Your task to perform on an android device: Go to battery settings Image 0: 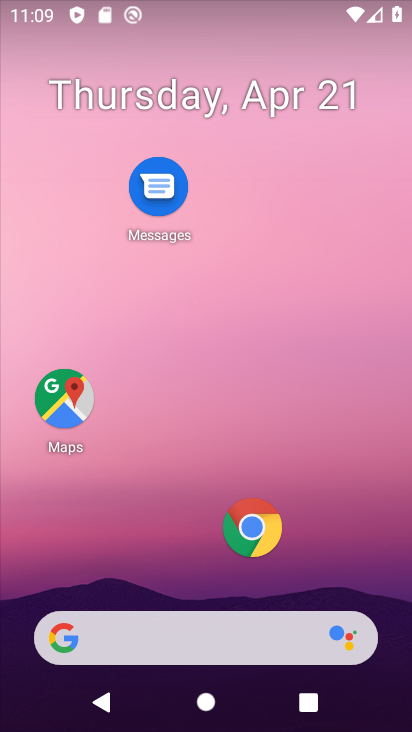
Step 0: drag from (207, 608) to (390, 71)
Your task to perform on an android device: Go to battery settings Image 1: 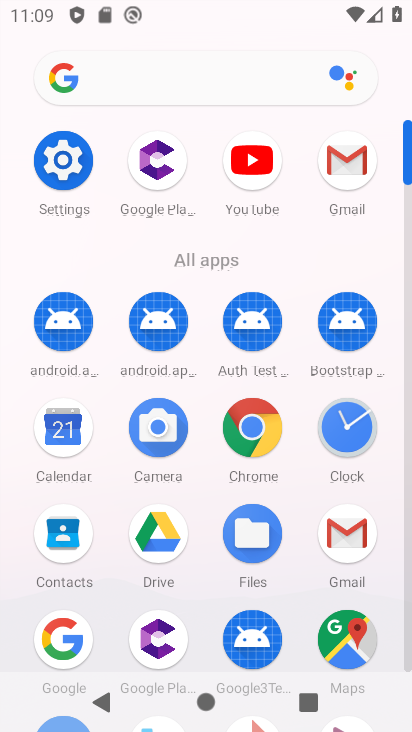
Step 1: click (52, 164)
Your task to perform on an android device: Go to battery settings Image 2: 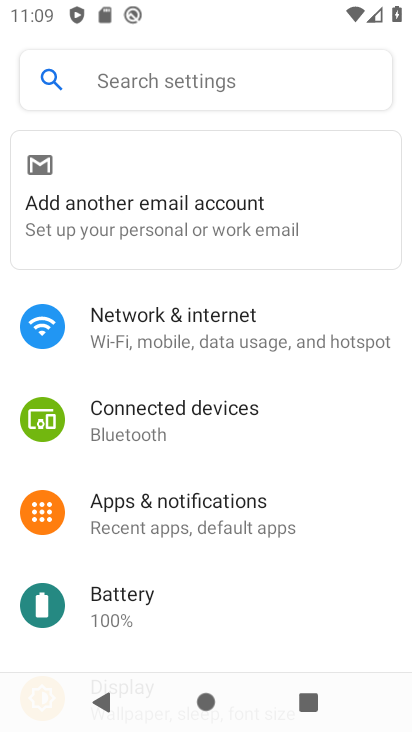
Step 2: drag from (185, 556) to (175, 280)
Your task to perform on an android device: Go to battery settings Image 3: 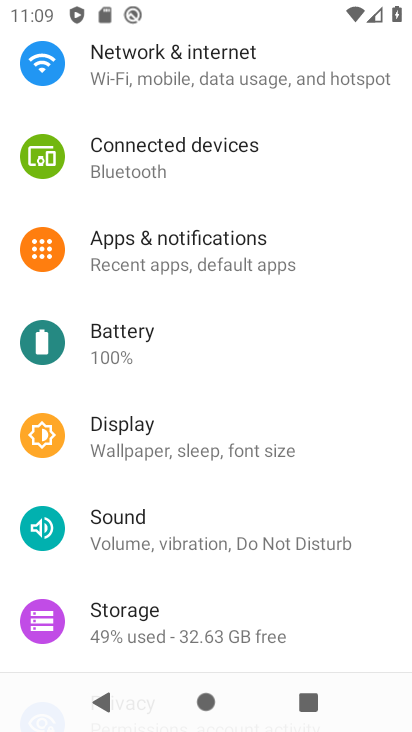
Step 3: click (153, 357)
Your task to perform on an android device: Go to battery settings Image 4: 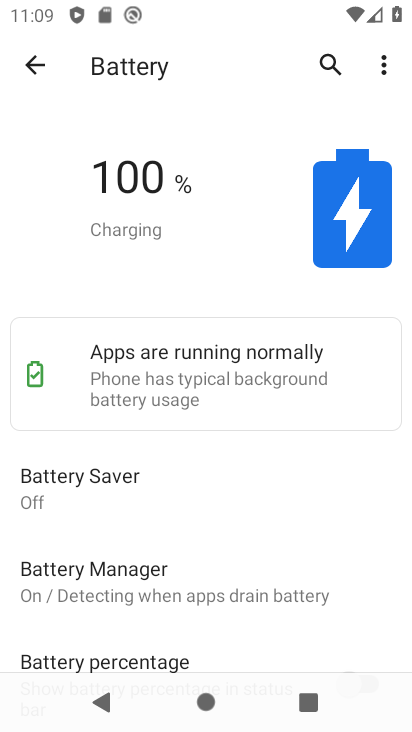
Step 4: task complete